Your task to perform on an android device: Go to Yahoo.com Image 0: 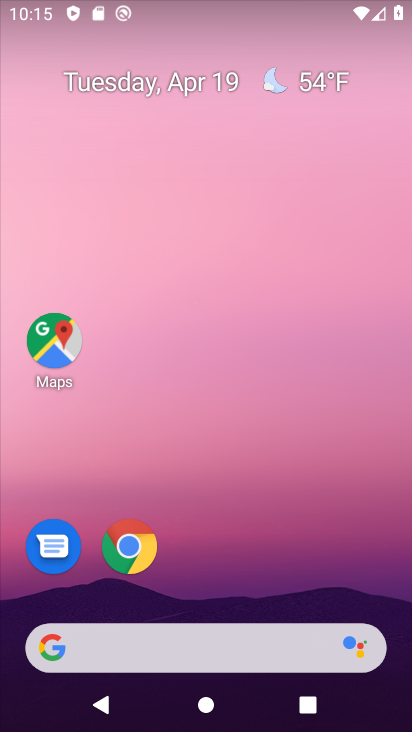
Step 0: click (113, 543)
Your task to perform on an android device: Go to Yahoo.com Image 1: 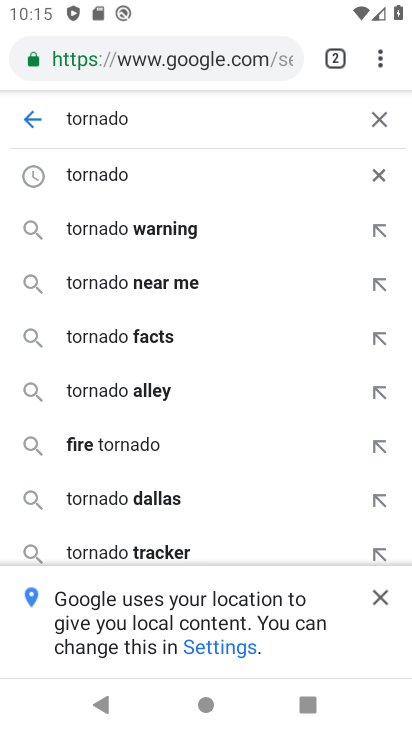
Step 1: click (256, 55)
Your task to perform on an android device: Go to Yahoo.com Image 2: 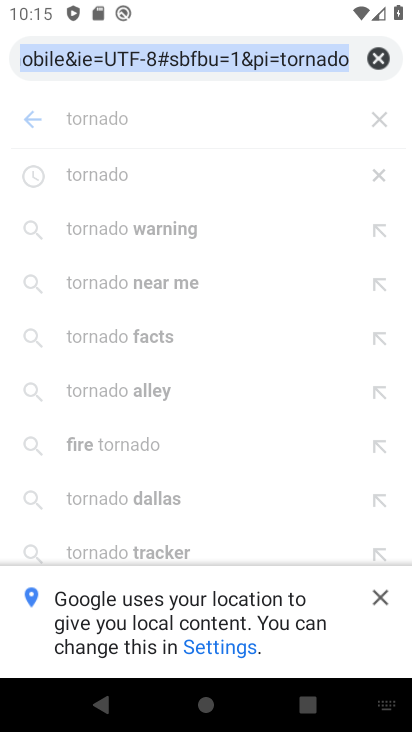
Step 2: click (383, 62)
Your task to perform on an android device: Go to Yahoo.com Image 3: 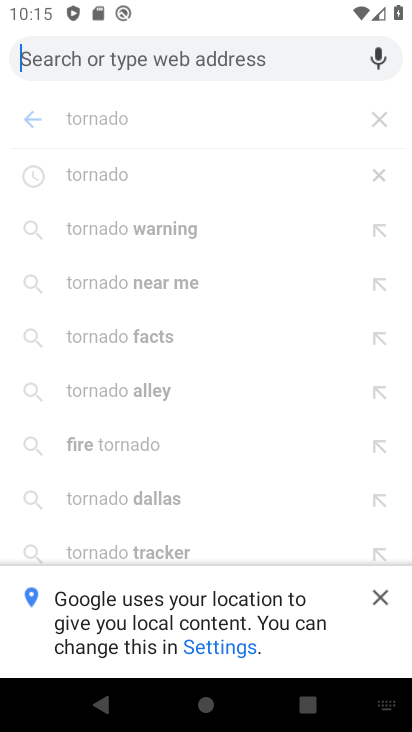
Step 3: click (381, 593)
Your task to perform on an android device: Go to Yahoo.com Image 4: 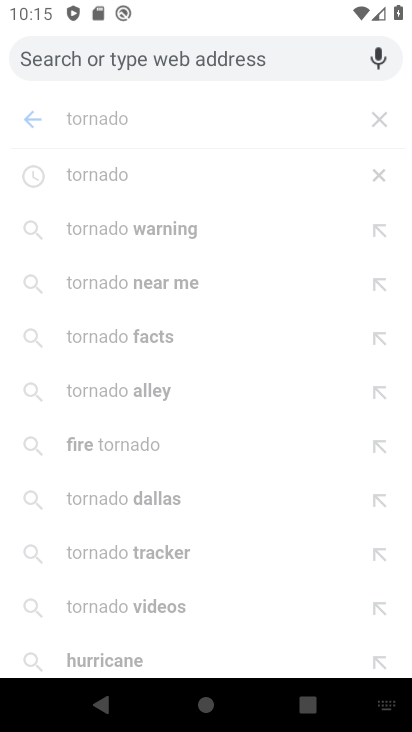
Step 4: type "yahoo.com"
Your task to perform on an android device: Go to Yahoo.com Image 5: 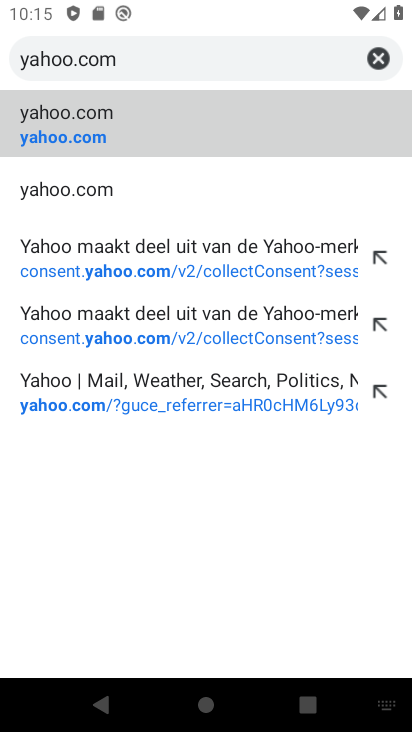
Step 5: click (315, 146)
Your task to perform on an android device: Go to Yahoo.com Image 6: 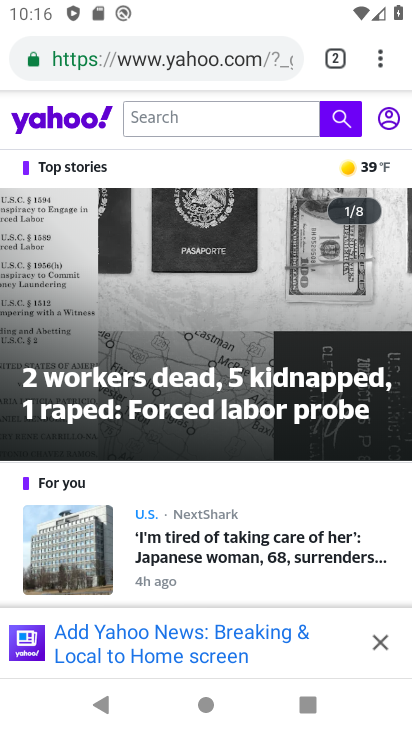
Step 6: task complete